Your task to perform on an android device: turn on showing notifications on the lock screen Image 0: 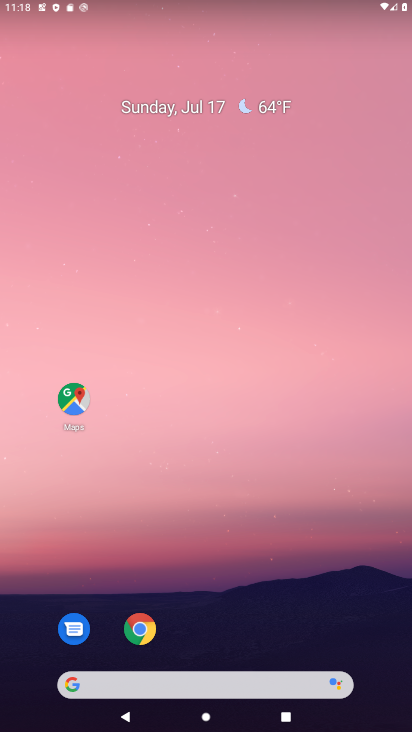
Step 0: drag from (241, 650) to (230, 276)
Your task to perform on an android device: turn on showing notifications on the lock screen Image 1: 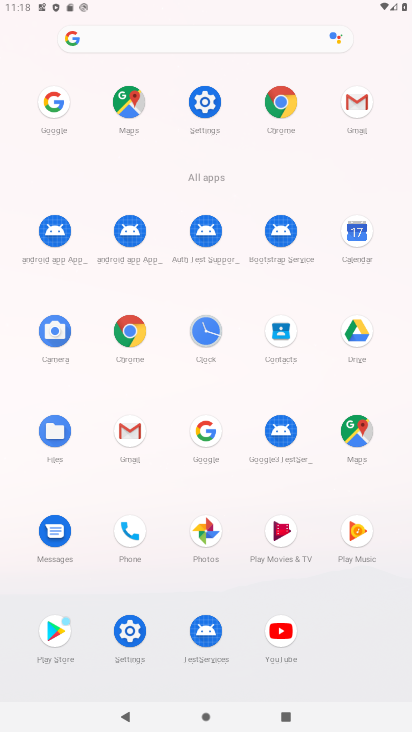
Step 1: click (201, 98)
Your task to perform on an android device: turn on showing notifications on the lock screen Image 2: 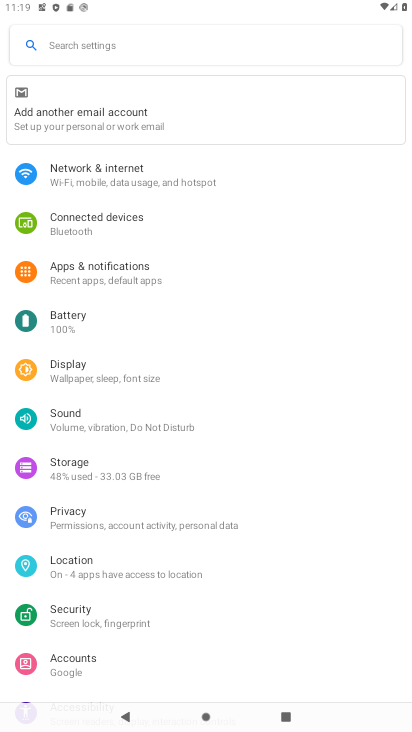
Step 2: click (97, 172)
Your task to perform on an android device: turn on showing notifications on the lock screen Image 3: 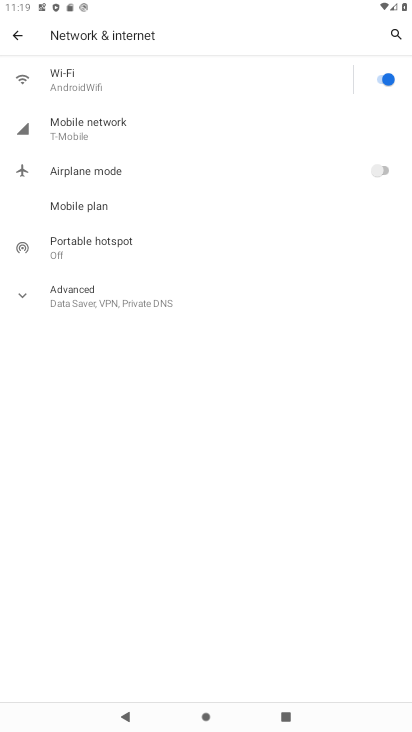
Step 3: click (18, 30)
Your task to perform on an android device: turn on showing notifications on the lock screen Image 4: 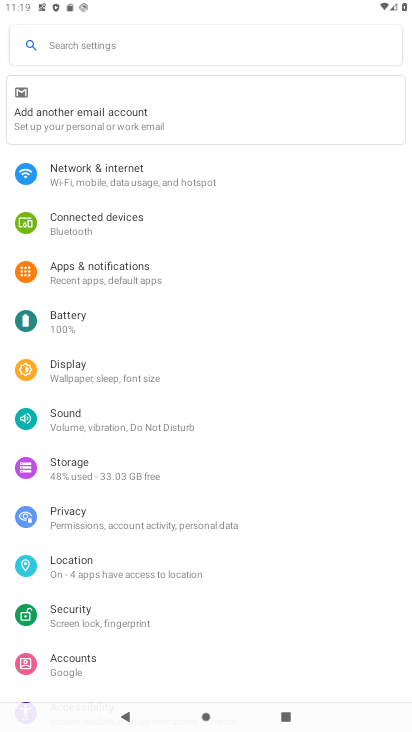
Step 4: click (87, 259)
Your task to perform on an android device: turn on showing notifications on the lock screen Image 5: 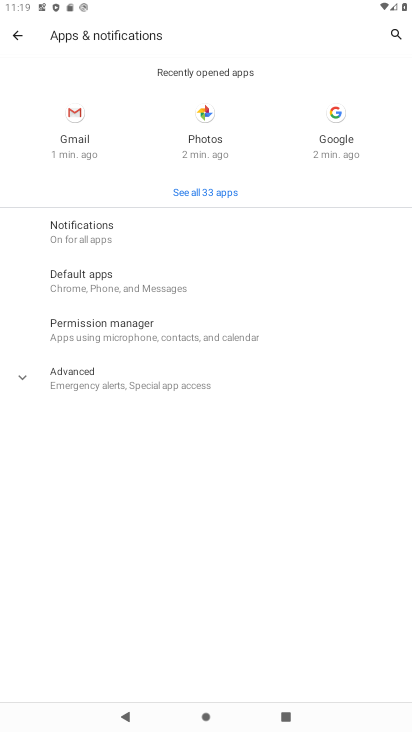
Step 5: click (129, 226)
Your task to perform on an android device: turn on showing notifications on the lock screen Image 6: 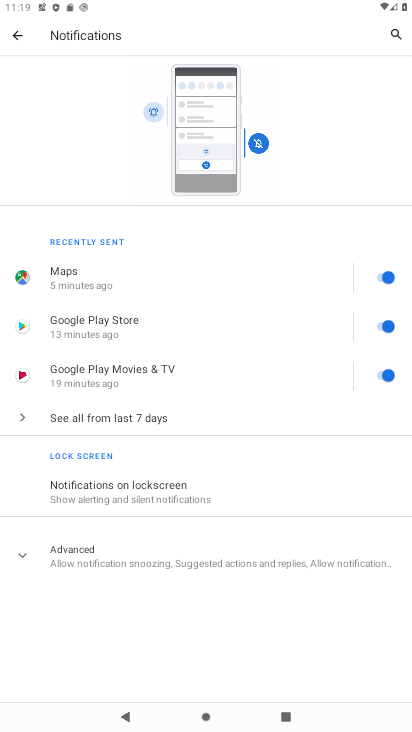
Step 6: click (184, 498)
Your task to perform on an android device: turn on showing notifications on the lock screen Image 7: 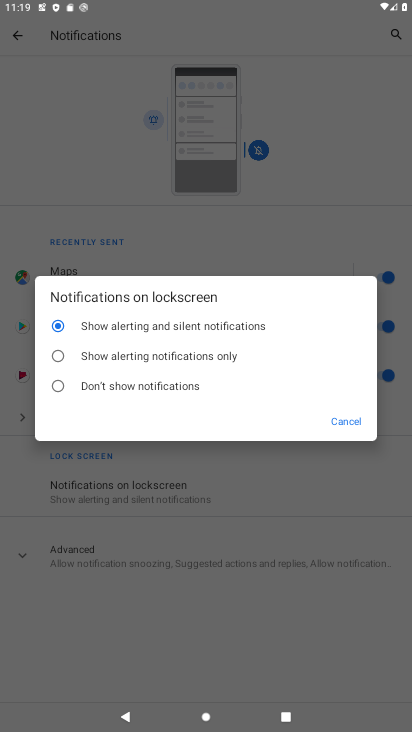
Step 7: task complete